Your task to perform on an android device: move a message to another label in the gmail app Image 0: 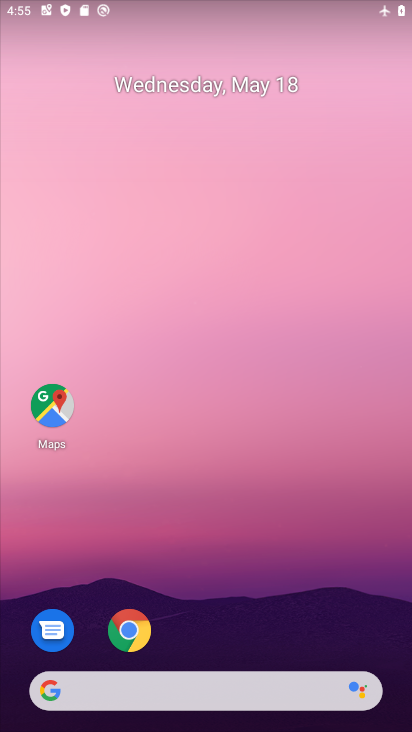
Step 0: drag from (276, 623) to (196, 82)
Your task to perform on an android device: move a message to another label in the gmail app Image 1: 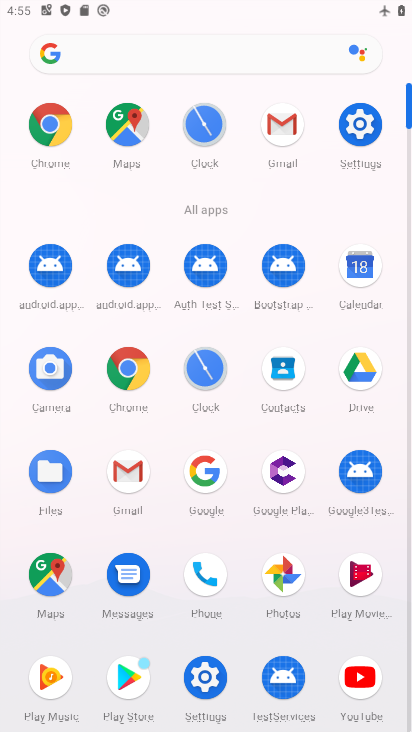
Step 1: click (282, 120)
Your task to perform on an android device: move a message to another label in the gmail app Image 2: 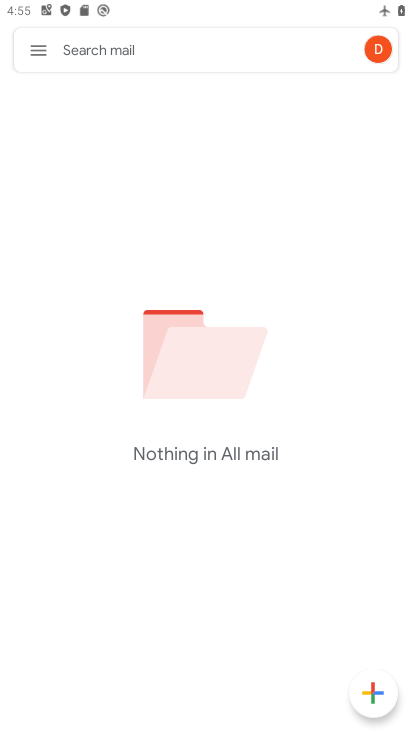
Step 2: click (39, 44)
Your task to perform on an android device: move a message to another label in the gmail app Image 3: 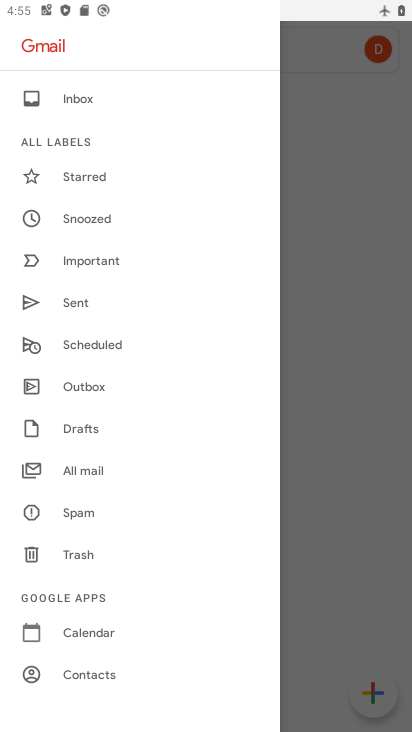
Step 3: click (71, 105)
Your task to perform on an android device: move a message to another label in the gmail app Image 4: 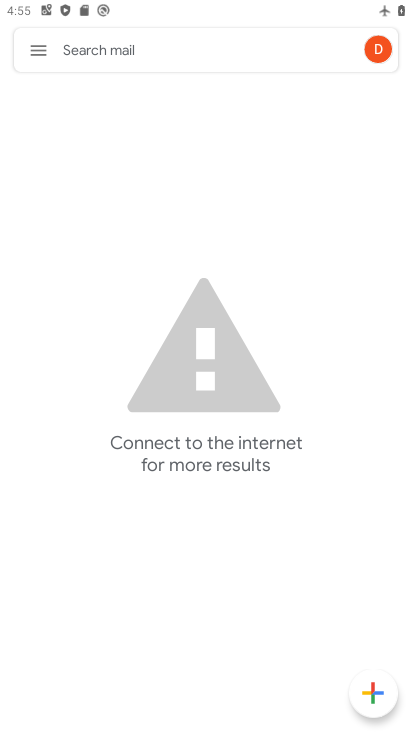
Step 4: click (34, 54)
Your task to perform on an android device: move a message to another label in the gmail app Image 5: 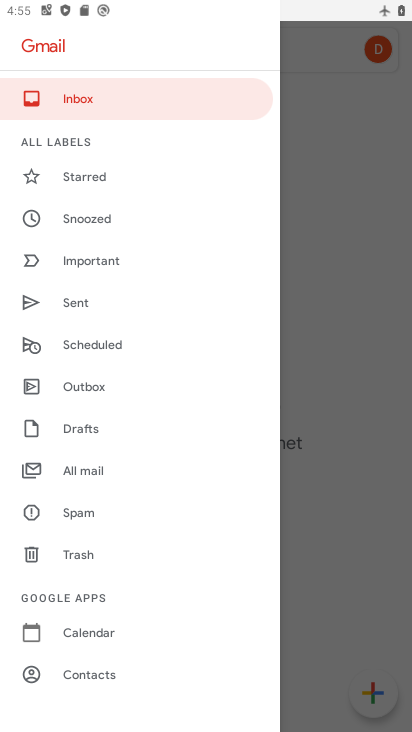
Step 5: click (82, 469)
Your task to perform on an android device: move a message to another label in the gmail app Image 6: 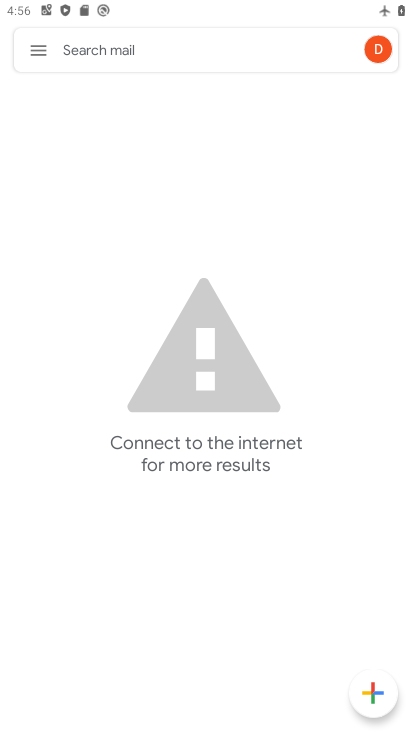
Step 6: task complete